Your task to perform on an android device: When is my next appointment? Image 0: 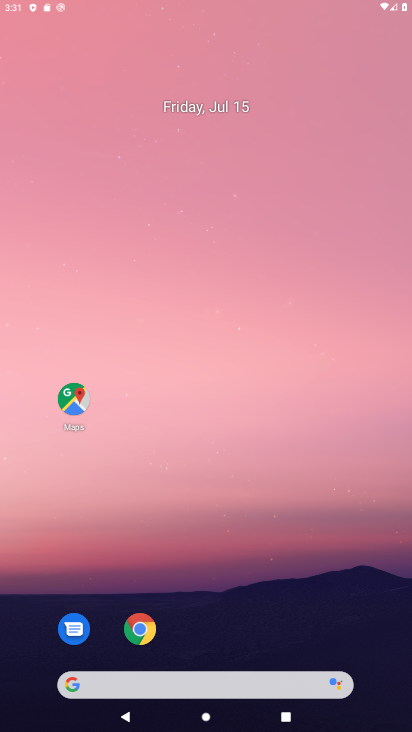
Step 0: click (304, 156)
Your task to perform on an android device: When is my next appointment? Image 1: 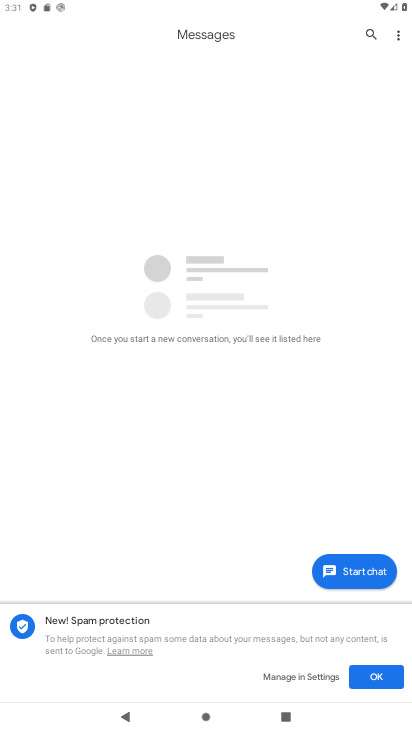
Step 1: click (379, 424)
Your task to perform on an android device: When is my next appointment? Image 2: 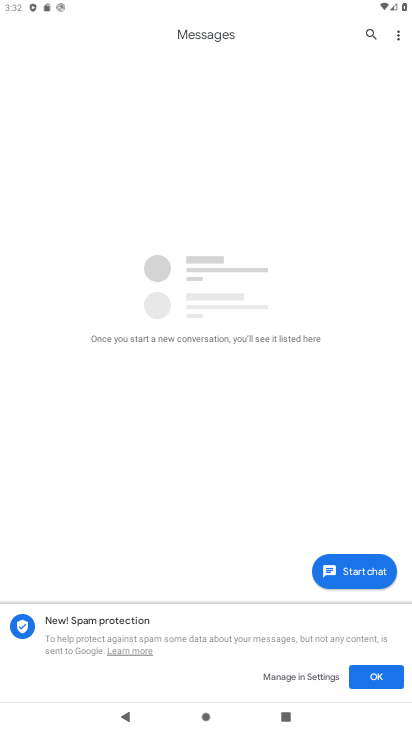
Step 2: press home button
Your task to perform on an android device: When is my next appointment? Image 3: 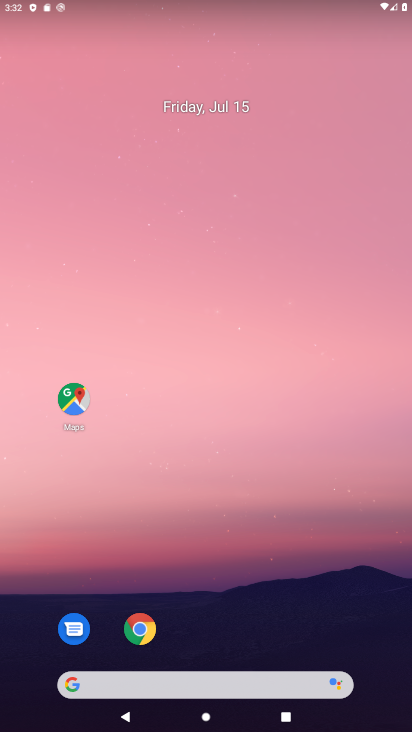
Step 3: drag from (314, 578) to (292, 429)
Your task to perform on an android device: When is my next appointment? Image 4: 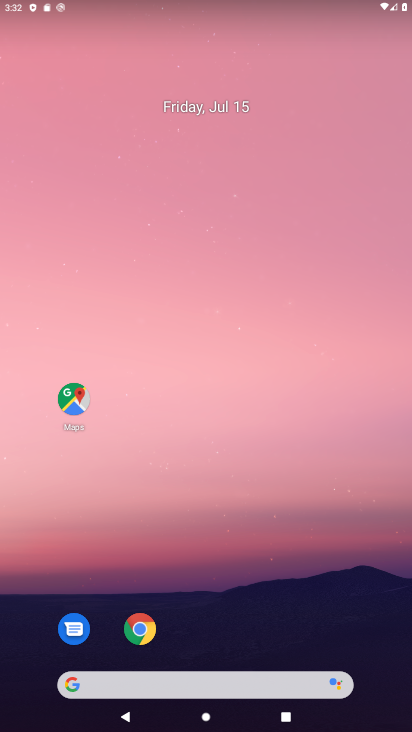
Step 4: drag from (231, 555) to (231, 70)
Your task to perform on an android device: When is my next appointment? Image 5: 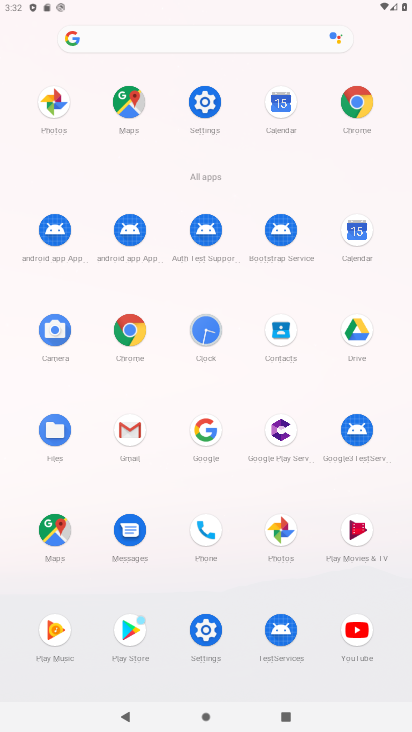
Step 5: click (273, 107)
Your task to perform on an android device: When is my next appointment? Image 6: 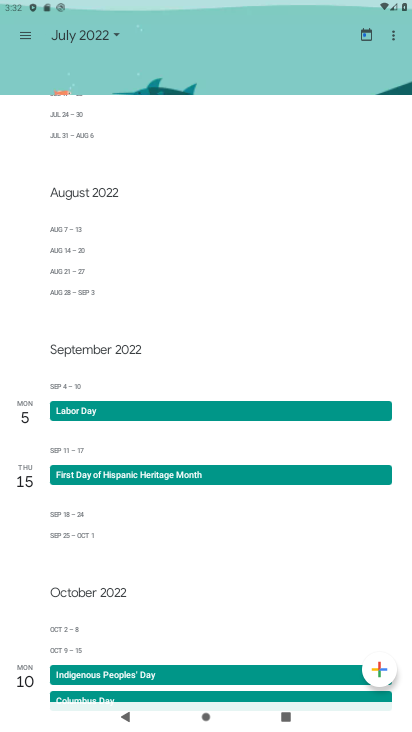
Step 6: click (0, 49)
Your task to perform on an android device: When is my next appointment? Image 7: 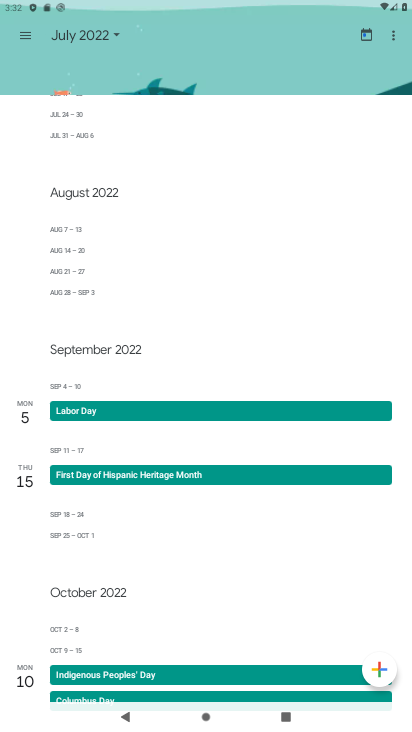
Step 7: click (19, 47)
Your task to perform on an android device: When is my next appointment? Image 8: 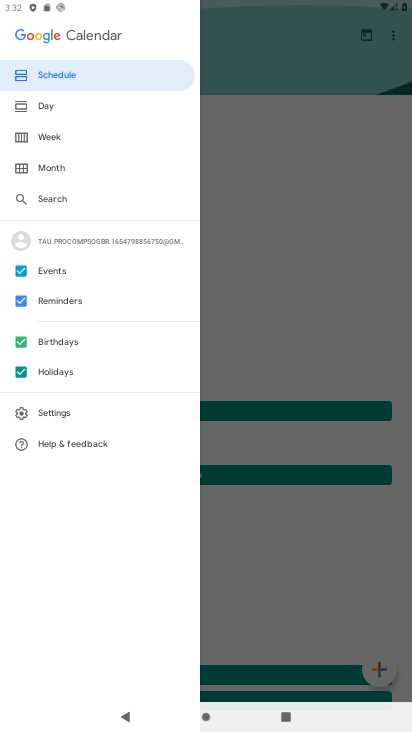
Step 8: click (84, 58)
Your task to perform on an android device: When is my next appointment? Image 9: 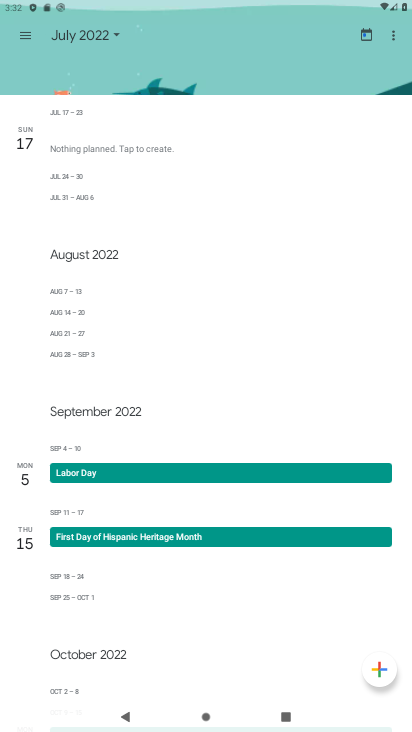
Step 9: task complete